Your task to perform on an android device: search for starred emails in the gmail app Image 0: 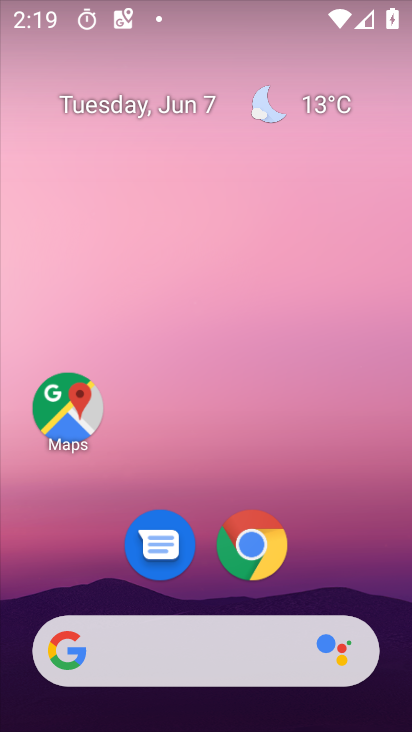
Step 0: drag from (263, 105) to (252, 9)
Your task to perform on an android device: search for starred emails in the gmail app Image 1: 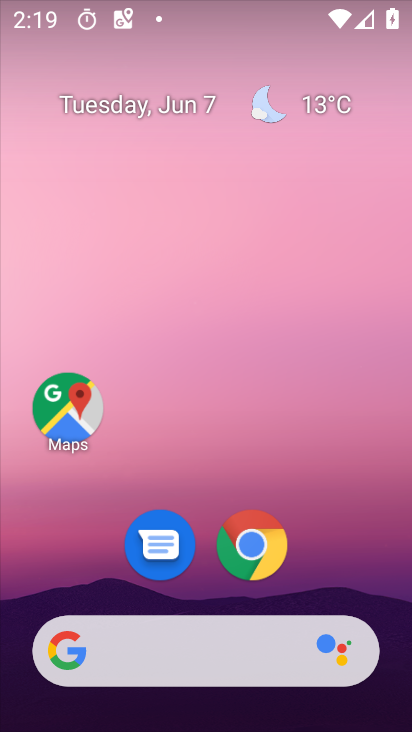
Step 1: drag from (331, 562) to (182, 6)
Your task to perform on an android device: search for starred emails in the gmail app Image 2: 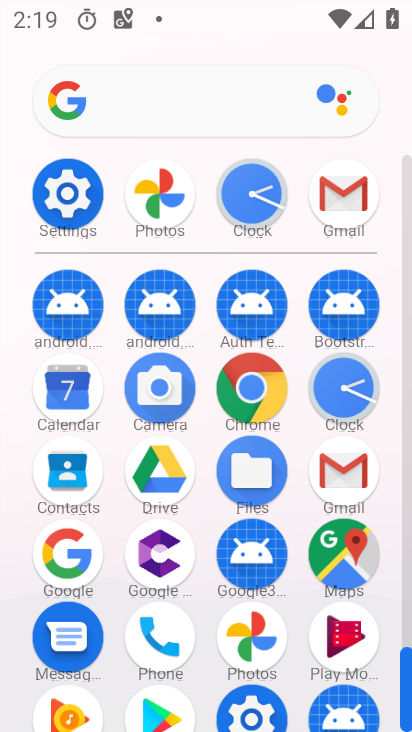
Step 2: click (346, 461)
Your task to perform on an android device: search for starred emails in the gmail app Image 3: 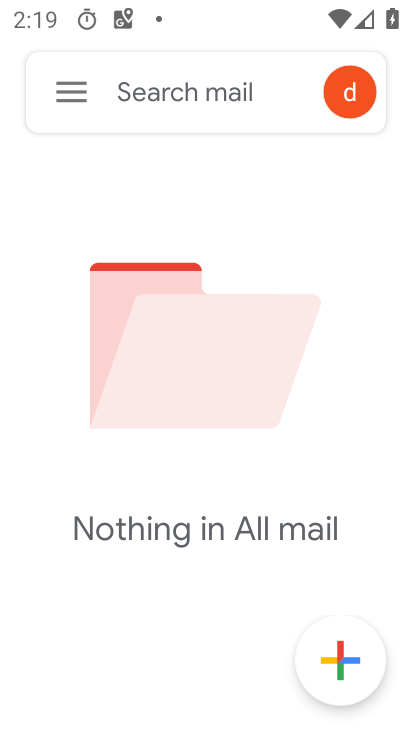
Step 3: click (188, 91)
Your task to perform on an android device: search for starred emails in the gmail app Image 4: 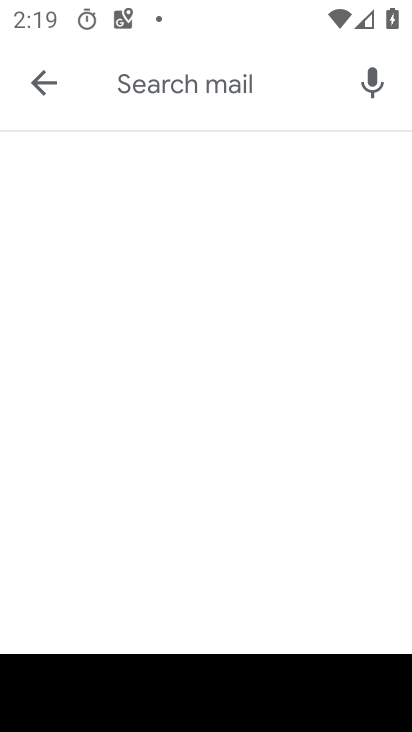
Step 4: type "starred"
Your task to perform on an android device: search for starred emails in the gmail app Image 5: 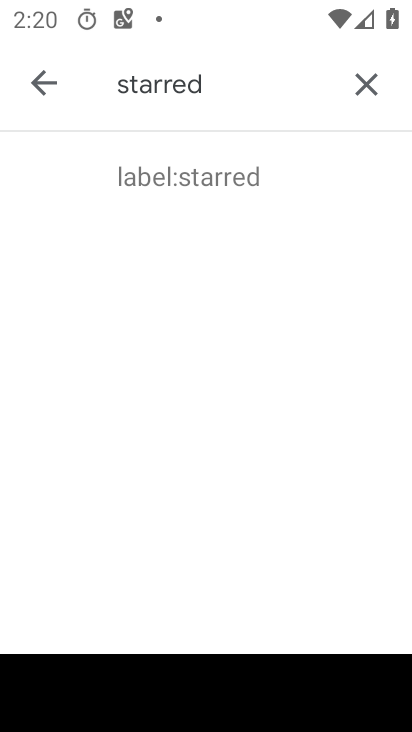
Step 5: click (217, 164)
Your task to perform on an android device: search for starred emails in the gmail app Image 6: 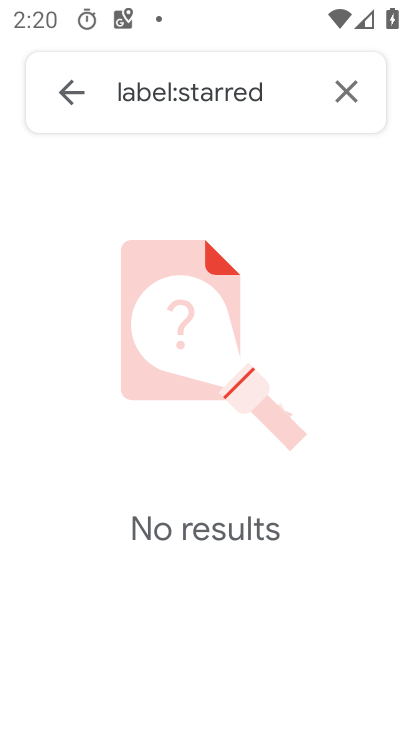
Step 6: task complete